Your task to perform on an android device: set default search engine in the chrome app Image 0: 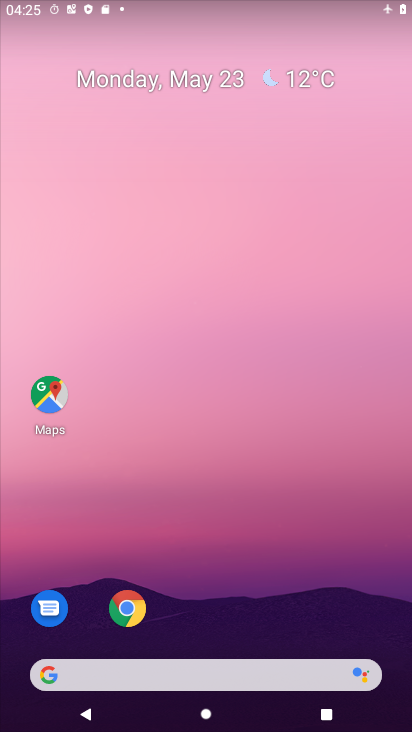
Step 0: click (144, 621)
Your task to perform on an android device: set default search engine in the chrome app Image 1: 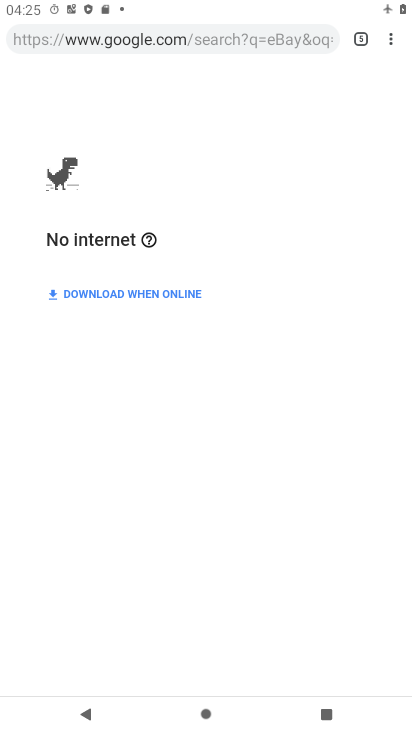
Step 1: click (387, 29)
Your task to perform on an android device: set default search engine in the chrome app Image 2: 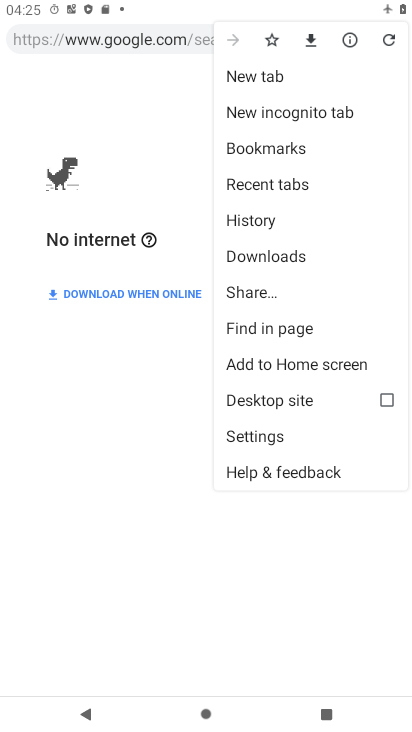
Step 2: click (288, 440)
Your task to perform on an android device: set default search engine in the chrome app Image 3: 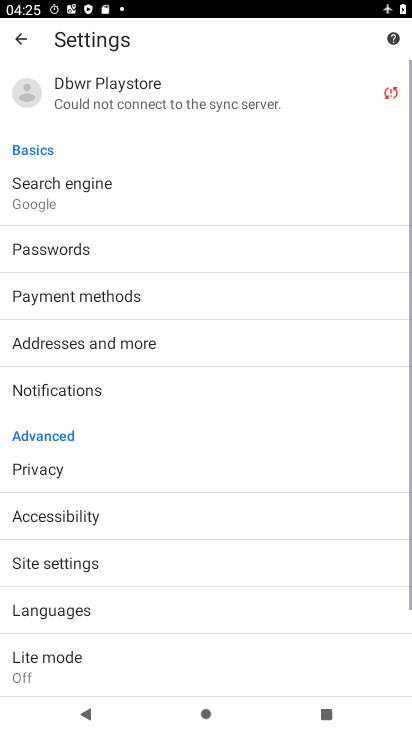
Step 3: click (113, 196)
Your task to perform on an android device: set default search engine in the chrome app Image 4: 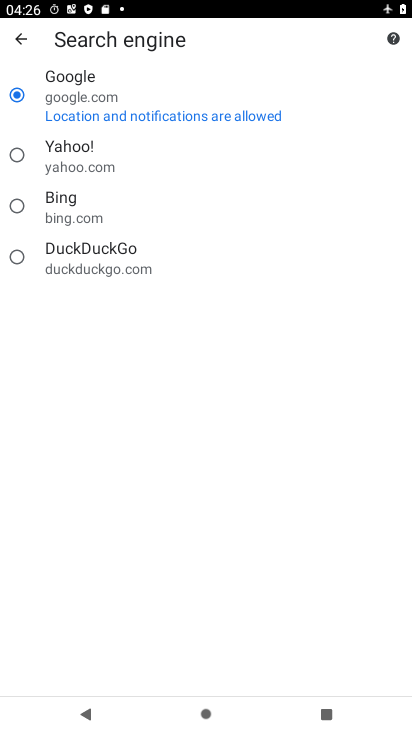
Step 4: click (151, 86)
Your task to perform on an android device: set default search engine in the chrome app Image 5: 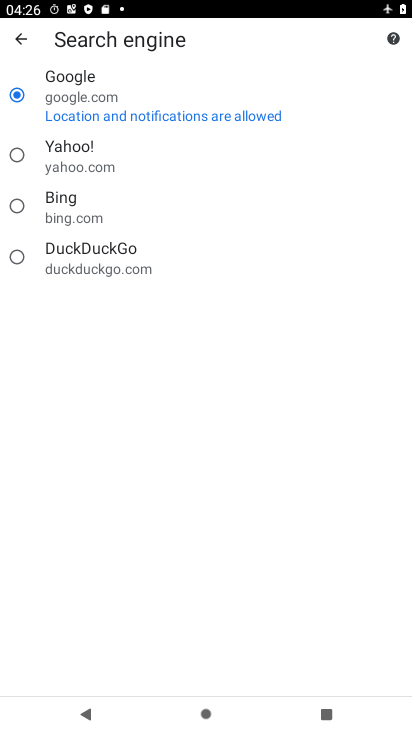
Step 5: task complete